Your task to perform on an android device: remove spam from my inbox in the gmail app Image 0: 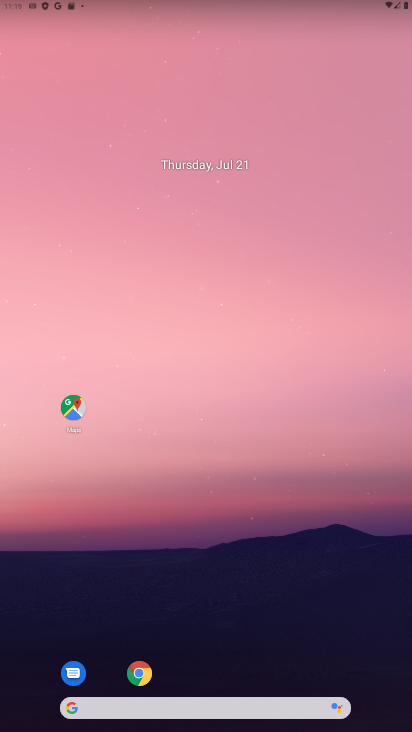
Step 0: press home button
Your task to perform on an android device: remove spam from my inbox in the gmail app Image 1: 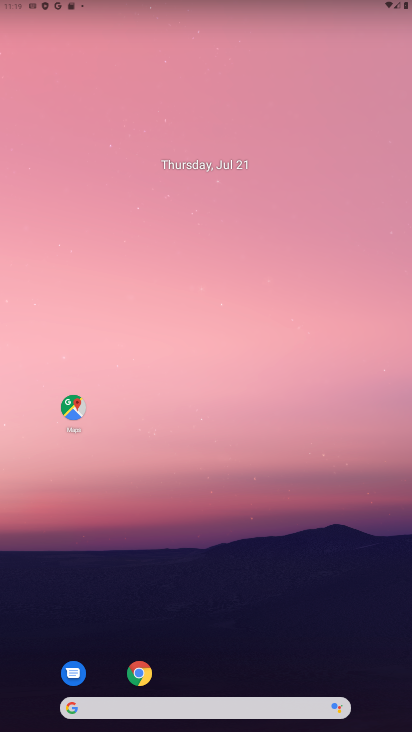
Step 1: drag from (225, 661) to (203, 108)
Your task to perform on an android device: remove spam from my inbox in the gmail app Image 2: 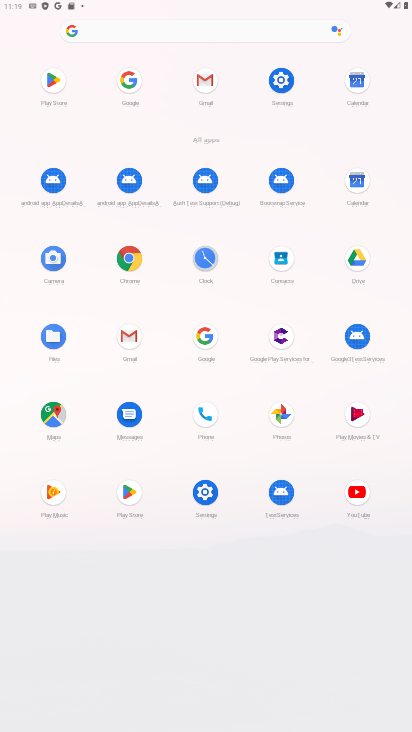
Step 2: click (127, 327)
Your task to perform on an android device: remove spam from my inbox in the gmail app Image 3: 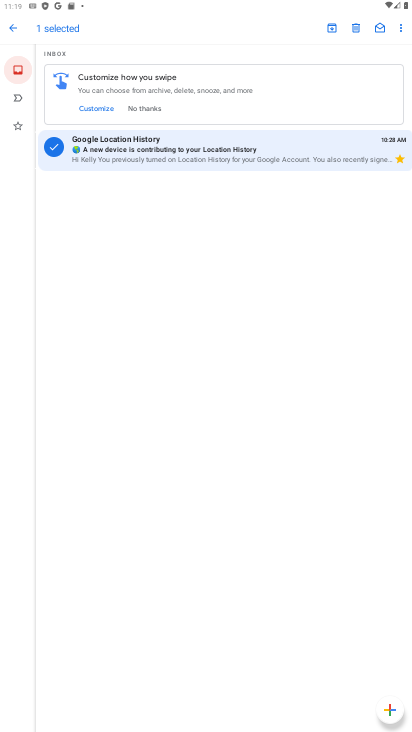
Step 3: click (50, 144)
Your task to perform on an android device: remove spam from my inbox in the gmail app Image 4: 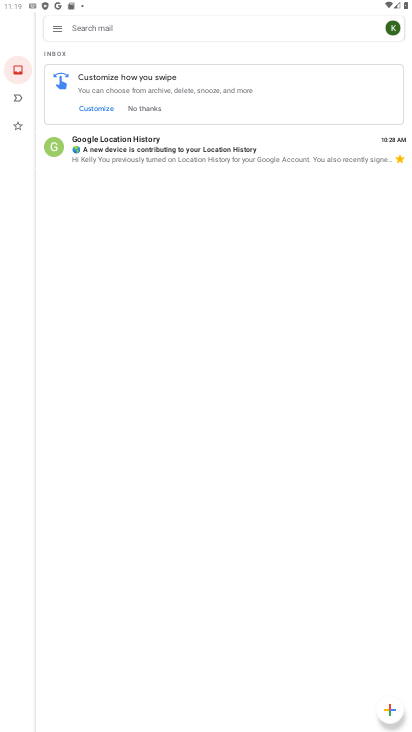
Step 4: click (52, 26)
Your task to perform on an android device: remove spam from my inbox in the gmail app Image 5: 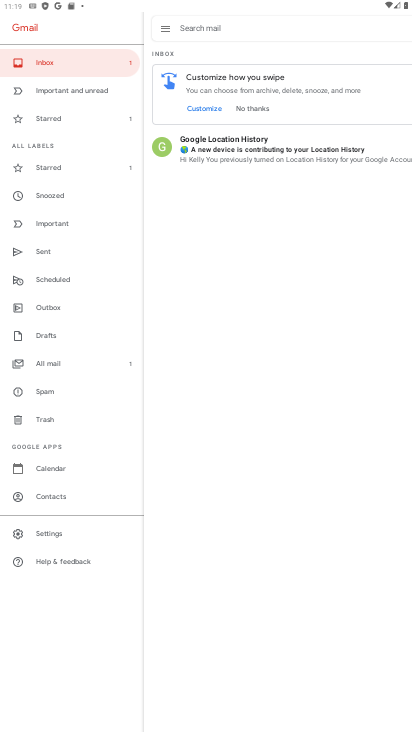
Step 5: click (50, 389)
Your task to perform on an android device: remove spam from my inbox in the gmail app Image 6: 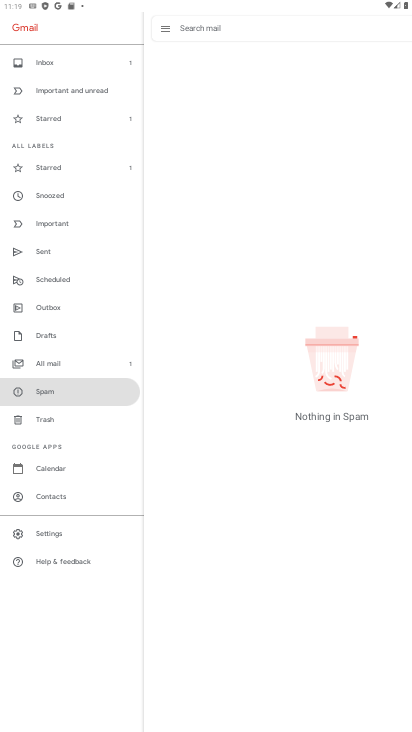
Step 6: task complete